Your task to perform on an android device: turn off priority inbox in the gmail app Image 0: 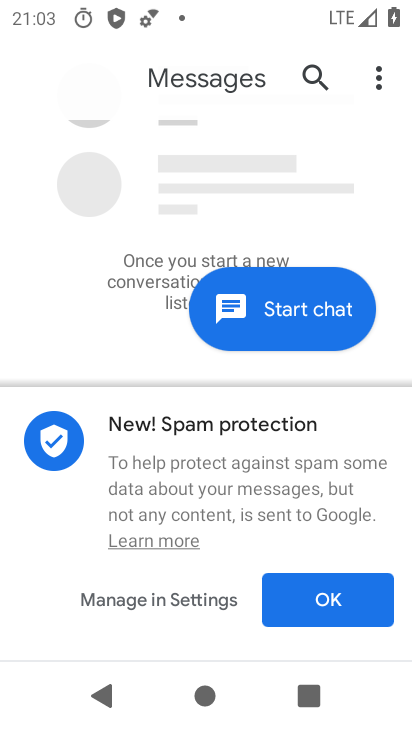
Step 0: press home button
Your task to perform on an android device: turn off priority inbox in the gmail app Image 1: 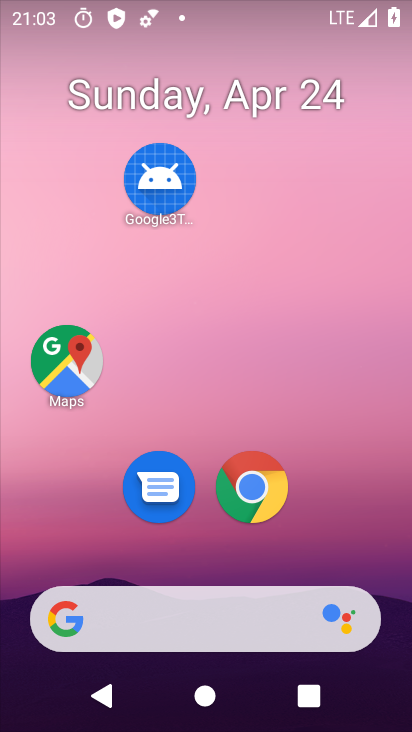
Step 1: drag from (333, 540) to (349, 155)
Your task to perform on an android device: turn off priority inbox in the gmail app Image 2: 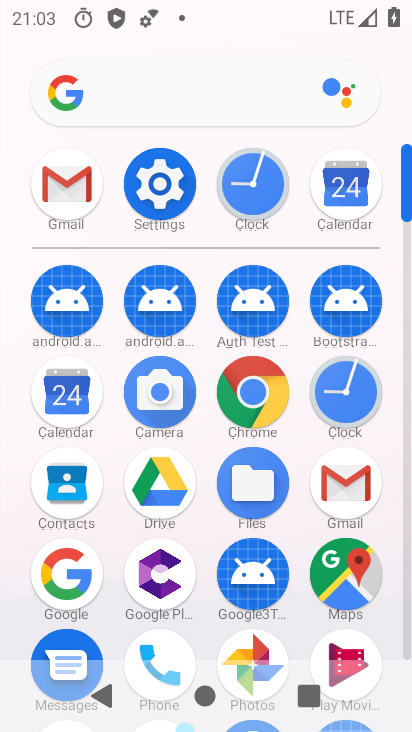
Step 2: click (355, 474)
Your task to perform on an android device: turn off priority inbox in the gmail app Image 3: 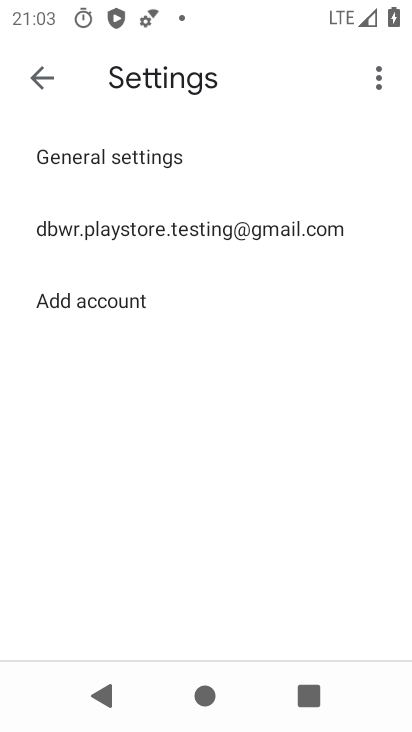
Step 3: click (165, 228)
Your task to perform on an android device: turn off priority inbox in the gmail app Image 4: 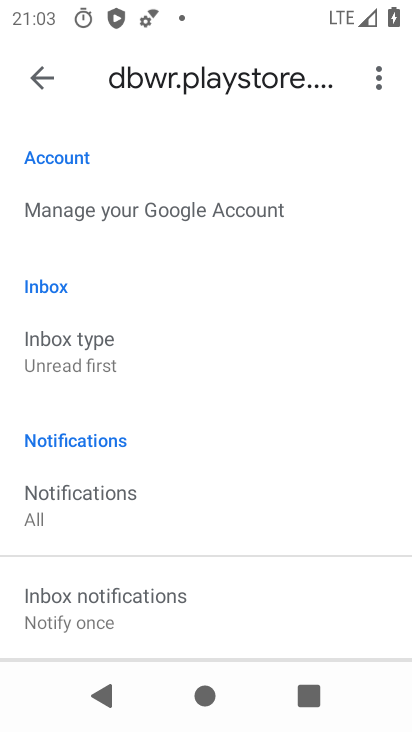
Step 4: click (97, 356)
Your task to perform on an android device: turn off priority inbox in the gmail app Image 5: 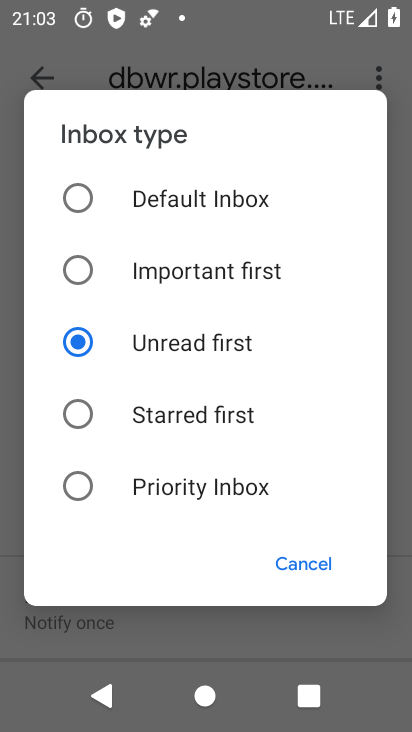
Step 5: task complete